Your task to perform on an android device: Go to Amazon Image 0: 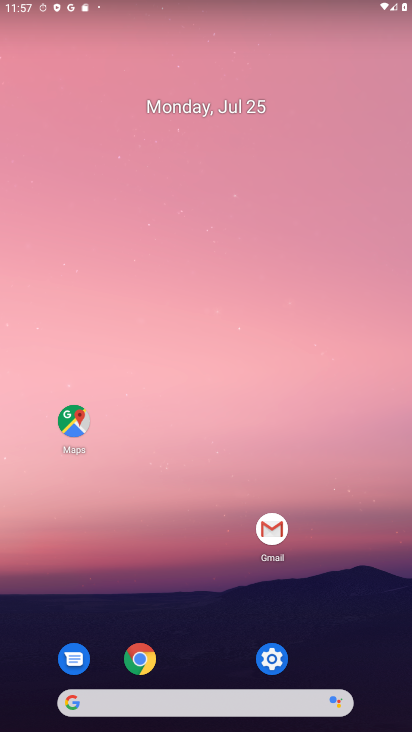
Step 0: click (133, 661)
Your task to perform on an android device: Go to Amazon Image 1: 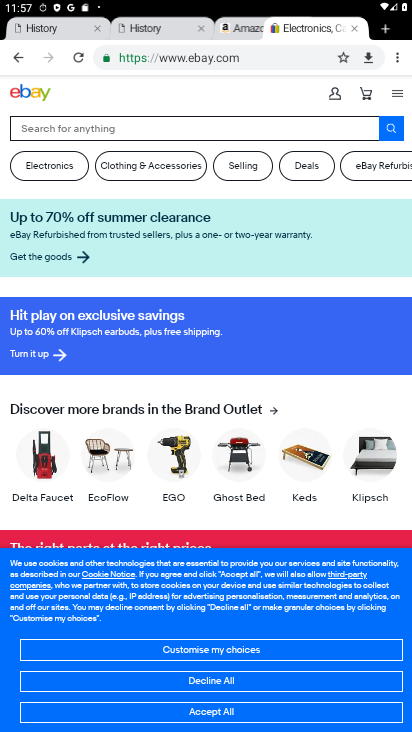
Step 1: click (387, 34)
Your task to perform on an android device: Go to Amazon Image 2: 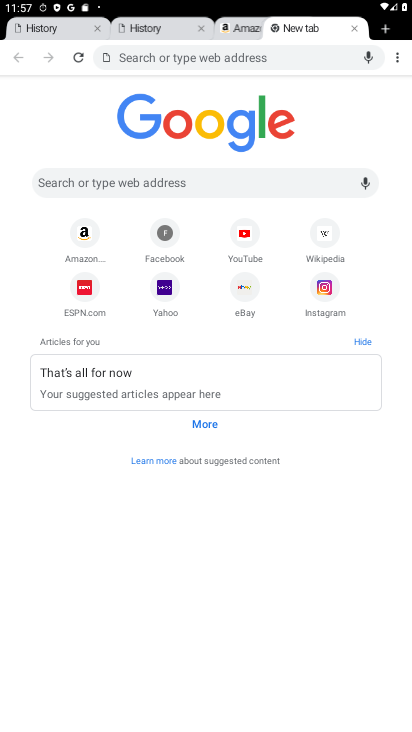
Step 2: click (85, 232)
Your task to perform on an android device: Go to Amazon Image 3: 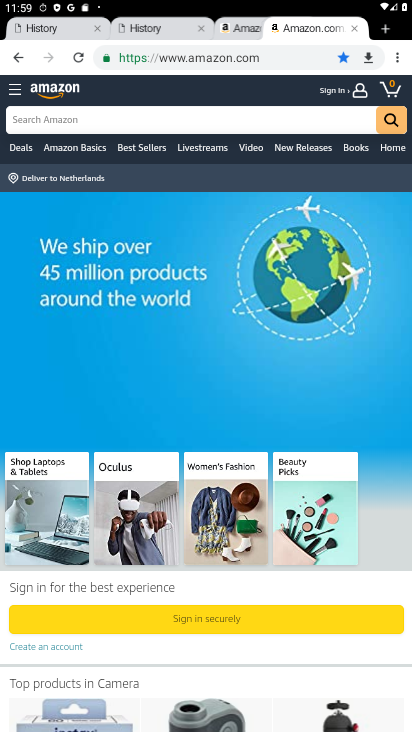
Step 3: task complete